Your task to perform on an android device: Go to privacy settings Image 0: 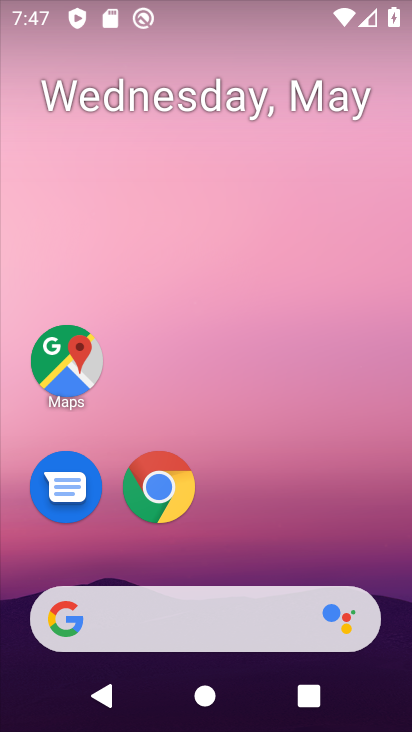
Step 0: drag from (255, 512) to (263, 38)
Your task to perform on an android device: Go to privacy settings Image 1: 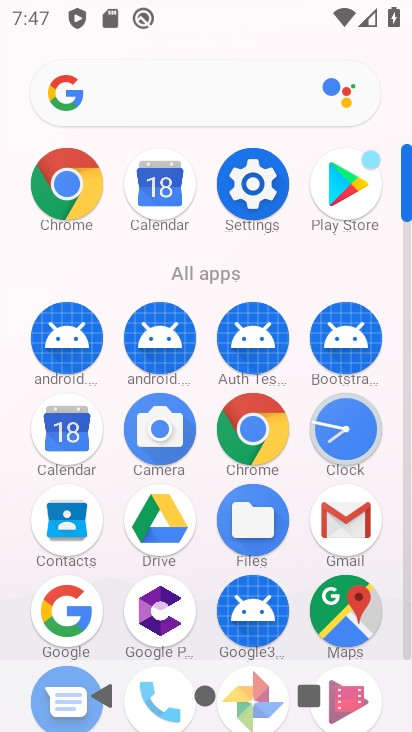
Step 1: click (252, 169)
Your task to perform on an android device: Go to privacy settings Image 2: 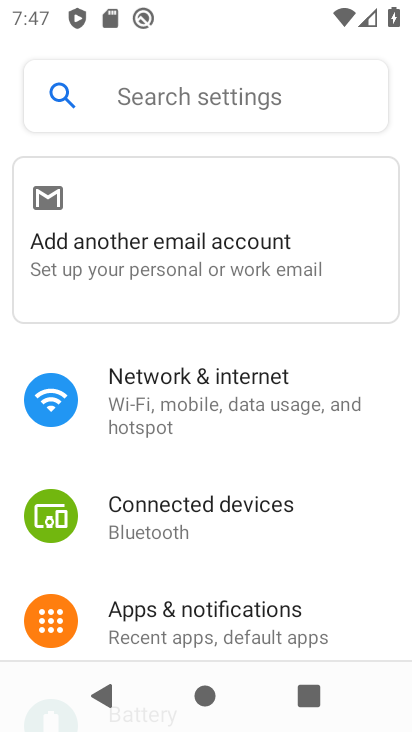
Step 2: drag from (202, 567) to (220, 216)
Your task to perform on an android device: Go to privacy settings Image 3: 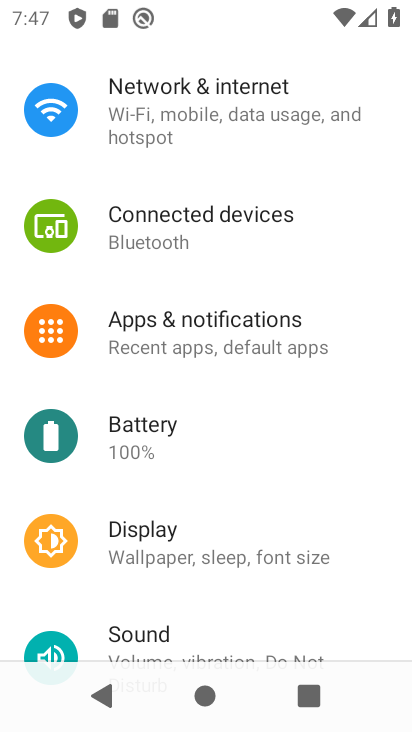
Step 3: drag from (254, 494) to (249, 161)
Your task to perform on an android device: Go to privacy settings Image 4: 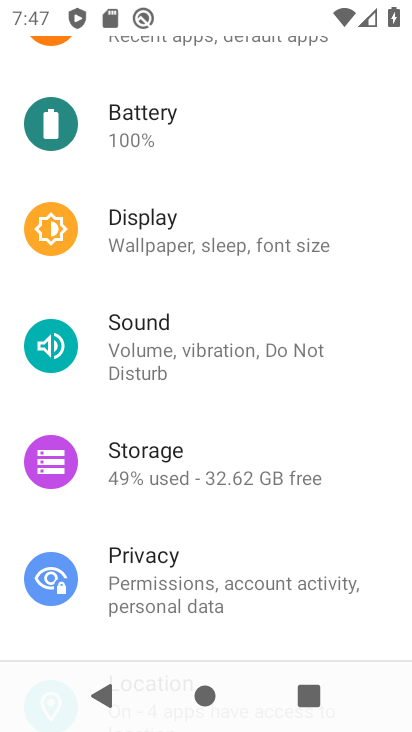
Step 4: click (196, 582)
Your task to perform on an android device: Go to privacy settings Image 5: 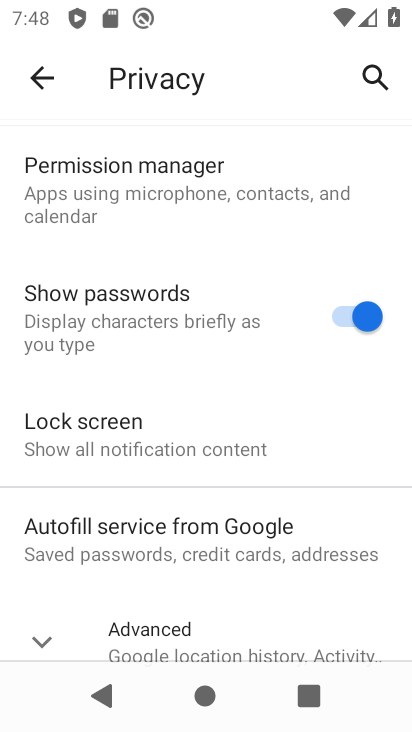
Step 5: task complete